Your task to perform on an android device: Open accessibility settings Image 0: 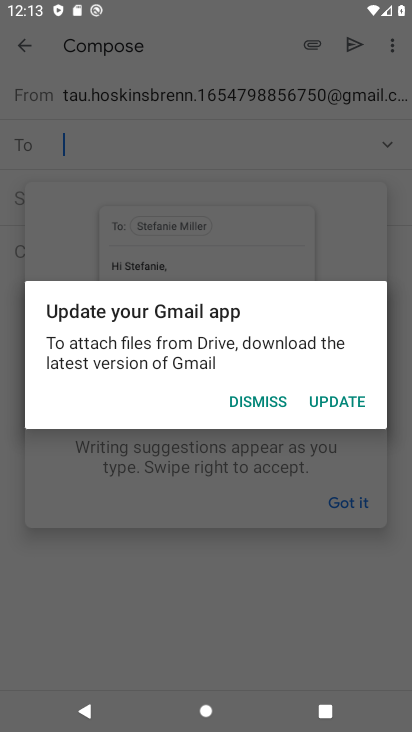
Step 0: press home button
Your task to perform on an android device: Open accessibility settings Image 1: 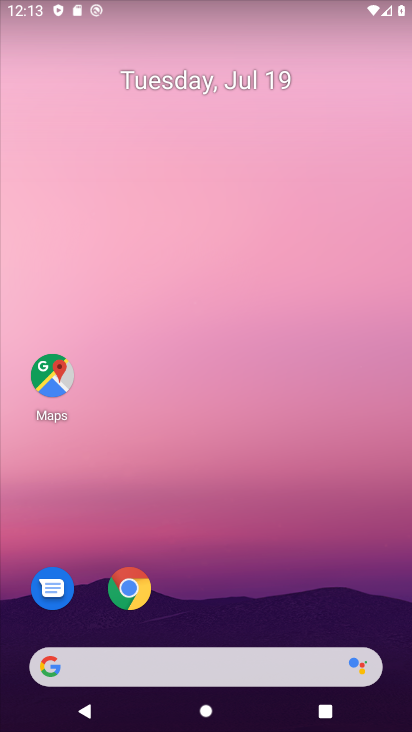
Step 1: drag from (254, 630) to (219, 160)
Your task to perform on an android device: Open accessibility settings Image 2: 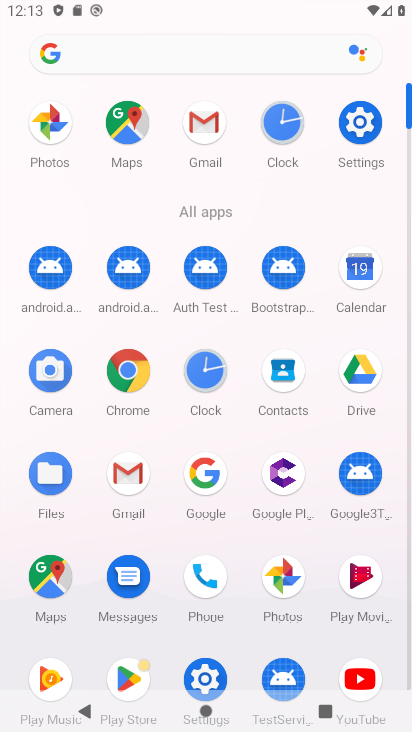
Step 2: click (357, 135)
Your task to perform on an android device: Open accessibility settings Image 3: 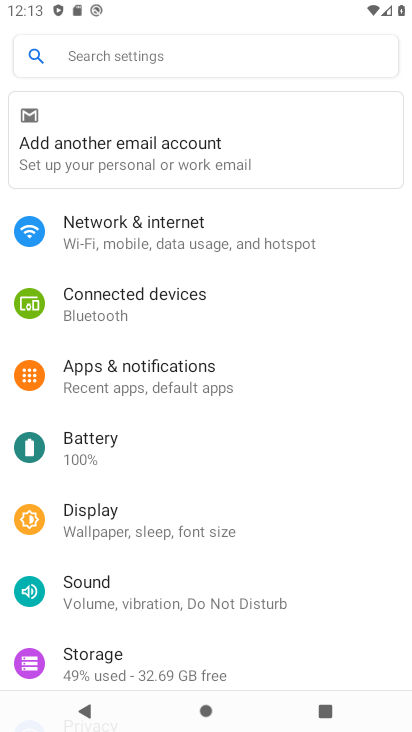
Step 3: drag from (203, 630) to (183, 241)
Your task to perform on an android device: Open accessibility settings Image 4: 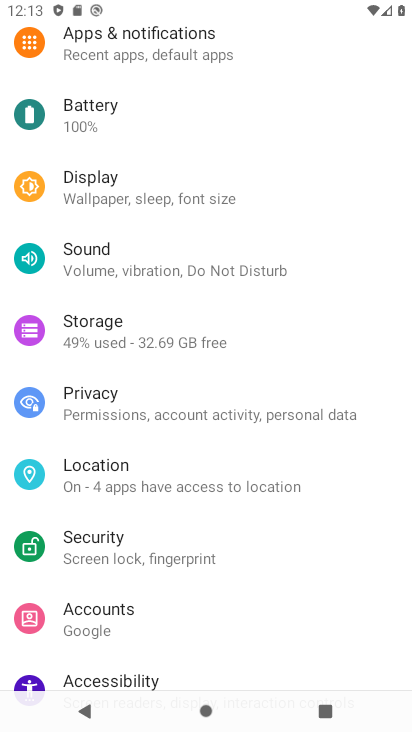
Step 4: click (170, 681)
Your task to perform on an android device: Open accessibility settings Image 5: 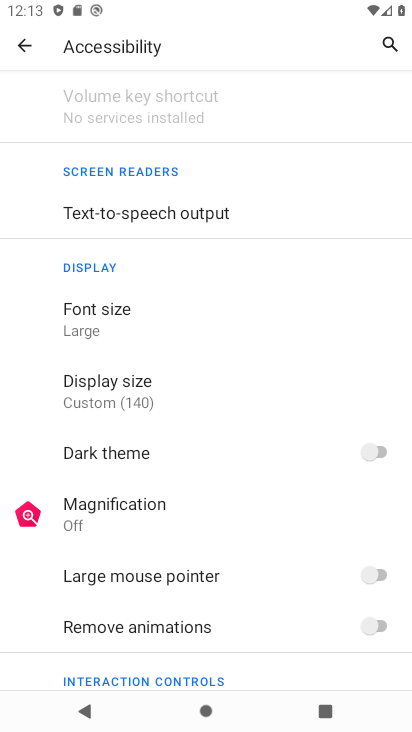
Step 5: task complete